Your task to perform on an android device: Open Youtube and go to the subscriptions tab Image 0: 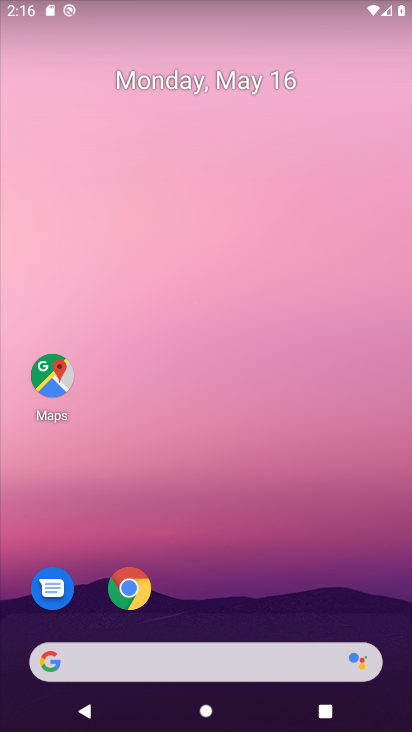
Step 0: drag from (210, 653) to (365, 63)
Your task to perform on an android device: Open Youtube and go to the subscriptions tab Image 1: 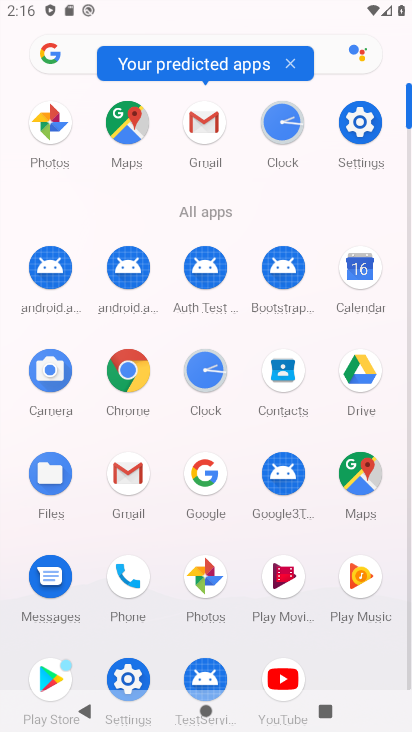
Step 1: click (278, 674)
Your task to perform on an android device: Open Youtube and go to the subscriptions tab Image 2: 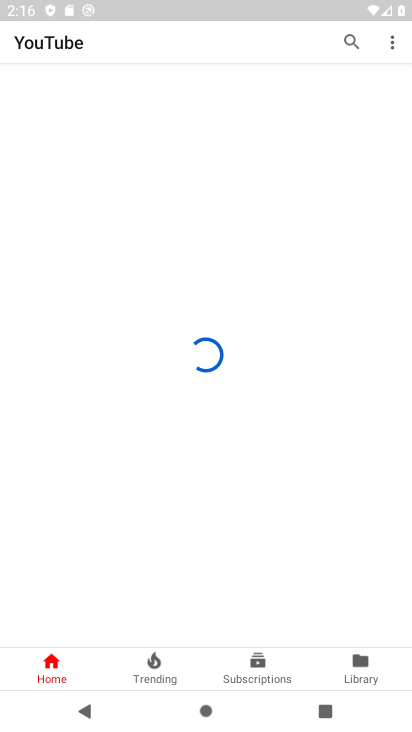
Step 2: click (253, 663)
Your task to perform on an android device: Open Youtube and go to the subscriptions tab Image 3: 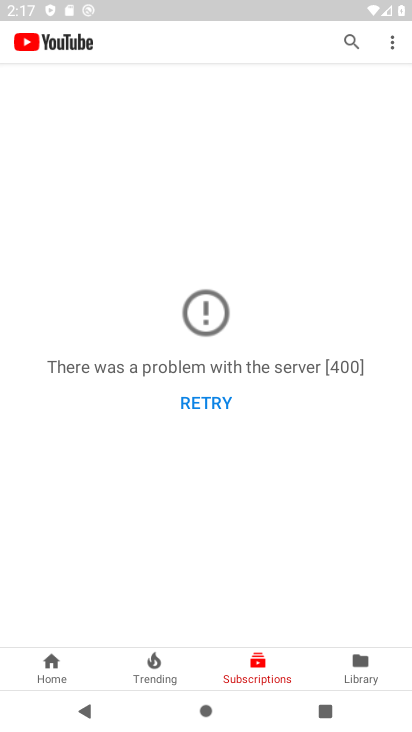
Step 3: task complete